Your task to perform on an android device: What's on my calendar today? Image 0: 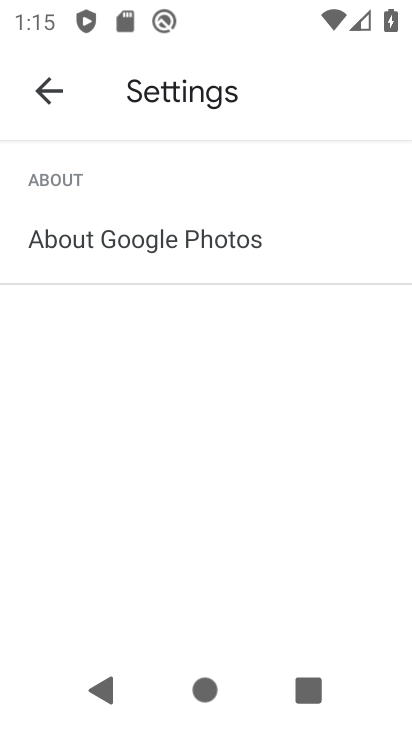
Step 0: press home button
Your task to perform on an android device: What's on my calendar today? Image 1: 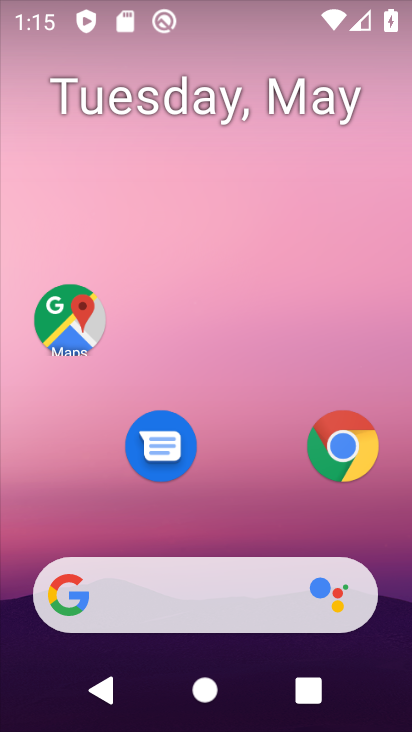
Step 1: drag from (256, 539) to (295, 135)
Your task to perform on an android device: What's on my calendar today? Image 2: 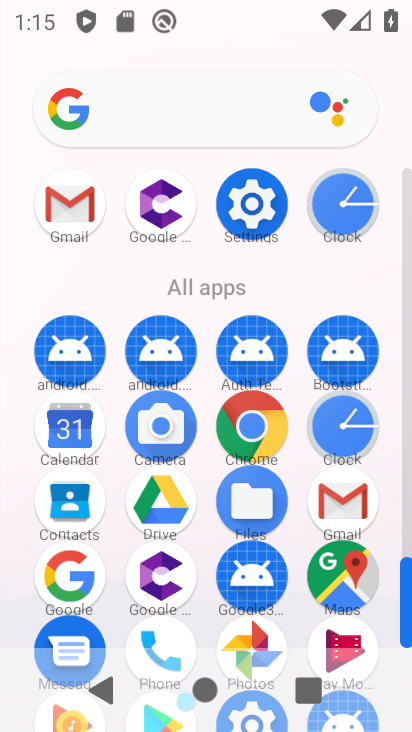
Step 2: click (71, 434)
Your task to perform on an android device: What's on my calendar today? Image 3: 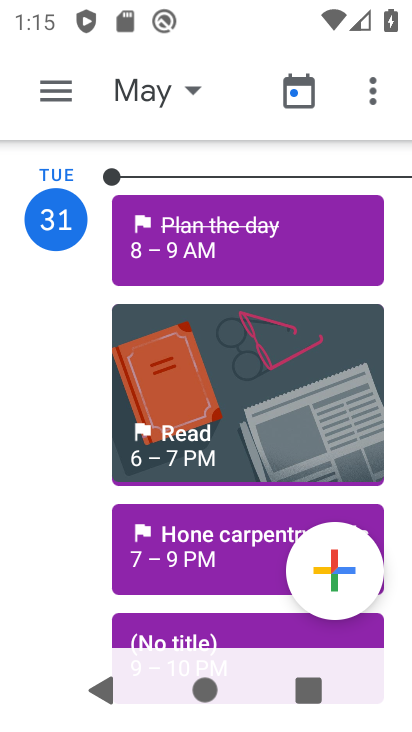
Step 3: click (73, 234)
Your task to perform on an android device: What's on my calendar today? Image 4: 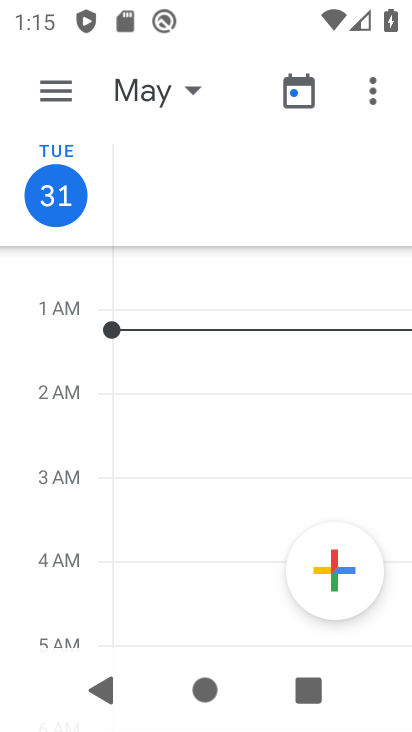
Step 4: task complete